Your task to perform on an android device: toggle show notifications on the lock screen Image 0: 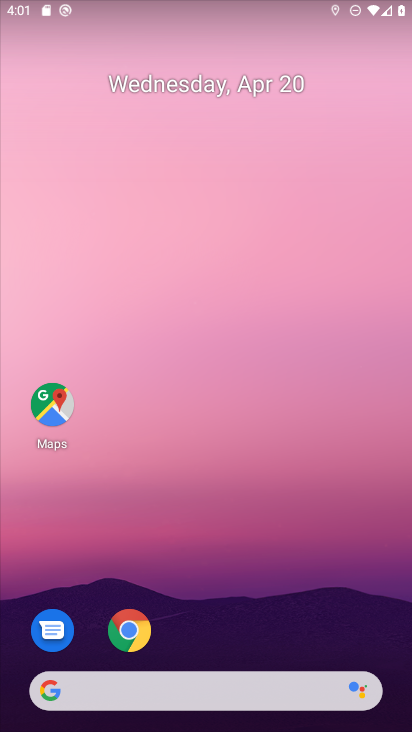
Step 0: drag from (228, 669) to (250, 53)
Your task to perform on an android device: toggle show notifications on the lock screen Image 1: 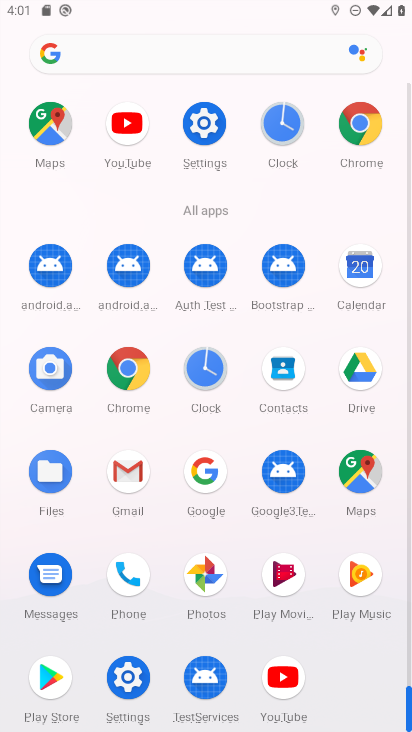
Step 1: click (140, 687)
Your task to perform on an android device: toggle show notifications on the lock screen Image 2: 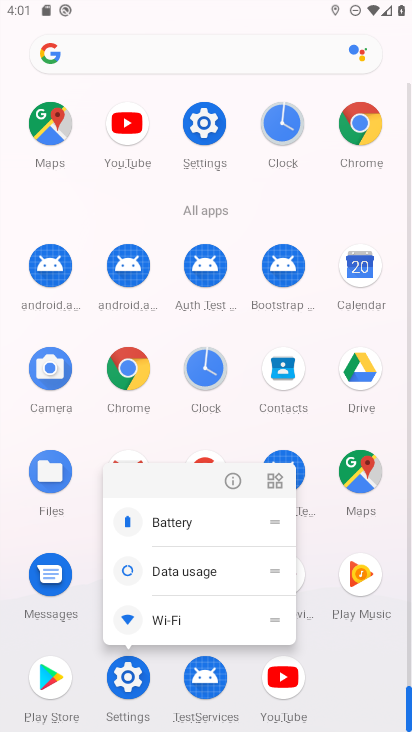
Step 2: click (140, 687)
Your task to perform on an android device: toggle show notifications on the lock screen Image 3: 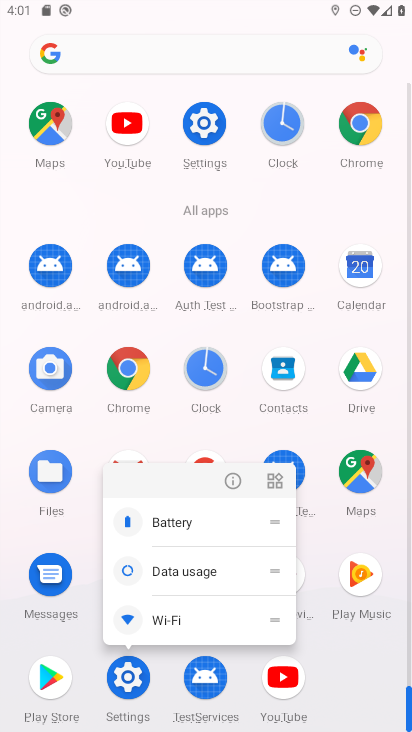
Step 3: click (126, 676)
Your task to perform on an android device: toggle show notifications on the lock screen Image 4: 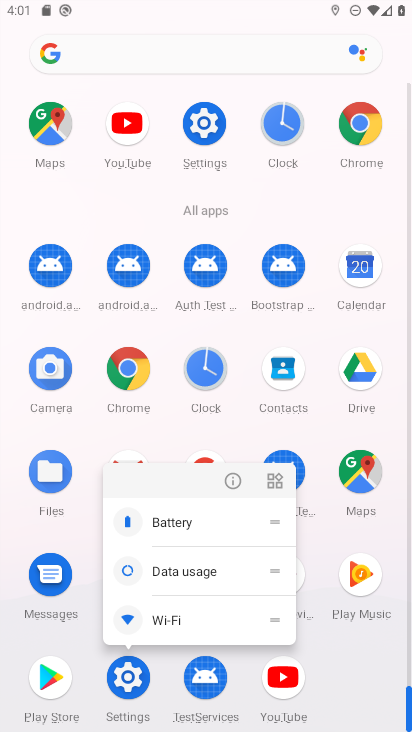
Step 4: click (126, 676)
Your task to perform on an android device: toggle show notifications on the lock screen Image 5: 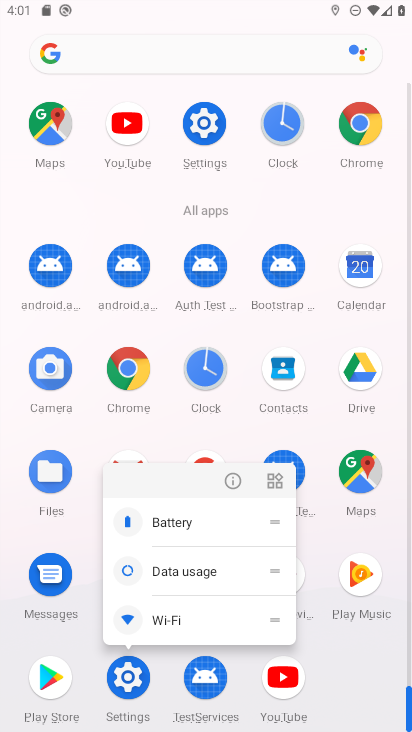
Step 5: click (126, 676)
Your task to perform on an android device: toggle show notifications on the lock screen Image 6: 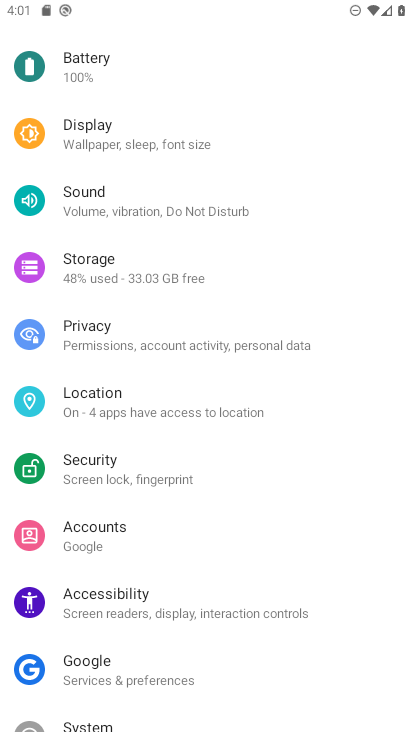
Step 6: drag from (186, 373) to (173, 705)
Your task to perform on an android device: toggle show notifications on the lock screen Image 7: 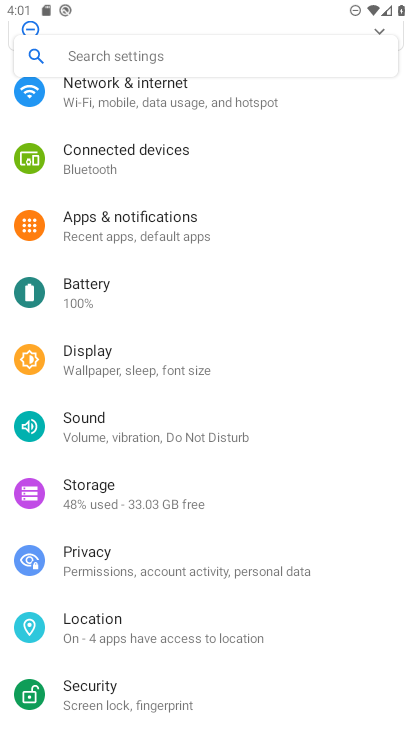
Step 7: click (158, 232)
Your task to perform on an android device: toggle show notifications on the lock screen Image 8: 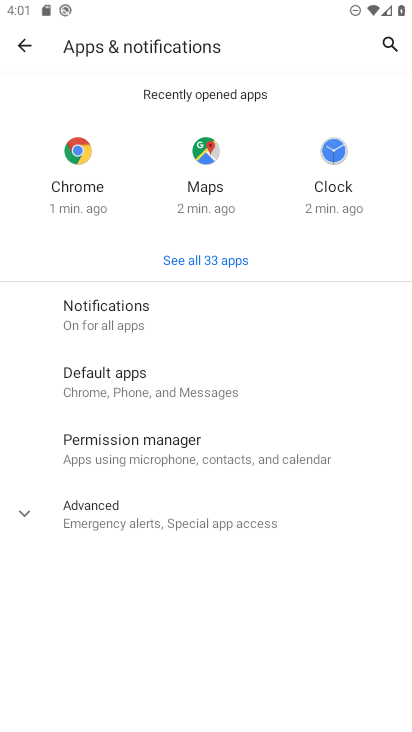
Step 8: click (149, 323)
Your task to perform on an android device: toggle show notifications on the lock screen Image 9: 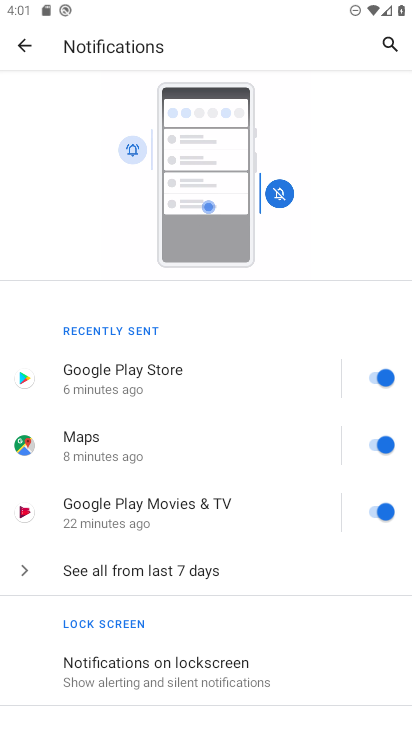
Step 9: click (225, 665)
Your task to perform on an android device: toggle show notifications on the lock screen Image 10: 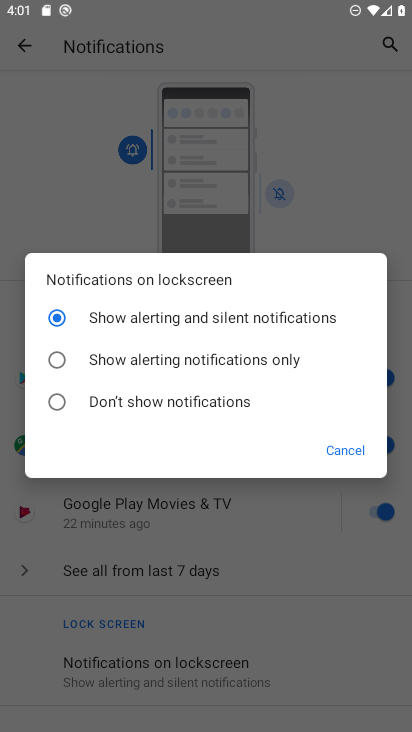
Step 10: click (84, 365)
Your task to perform on an android device: toggle show notifications on the lock screen Image 11: 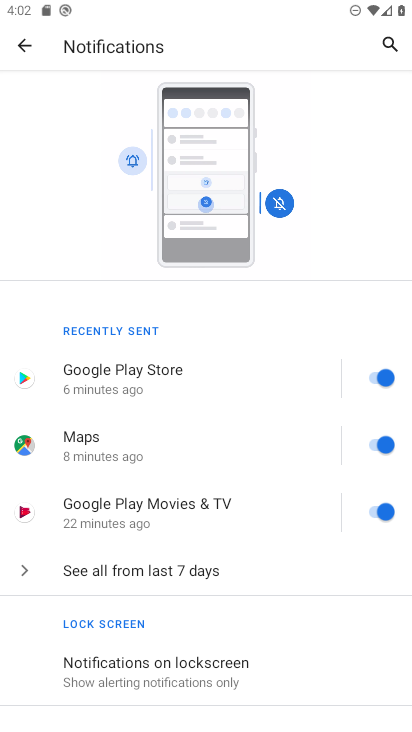
Step 11: task complete